Your task to perform on an android device: check battery use Image 0: 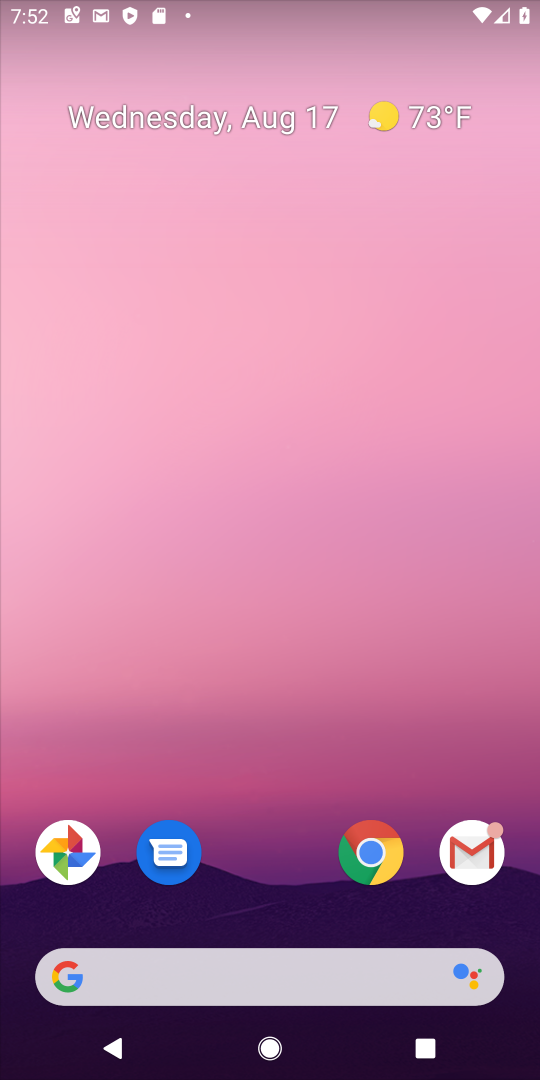
Step 0: drag from (273, 913) to (194, 303)
Your task to perform on an android device: check battery use Image 1: 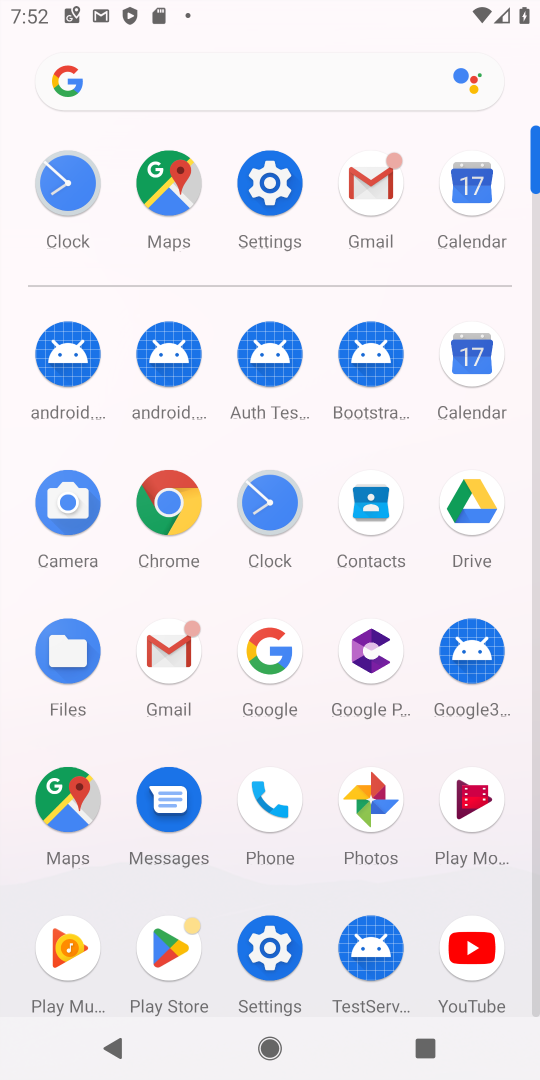
Step 1: click (265, 180)
Your task to perform on an android device: check battery use Image 2: 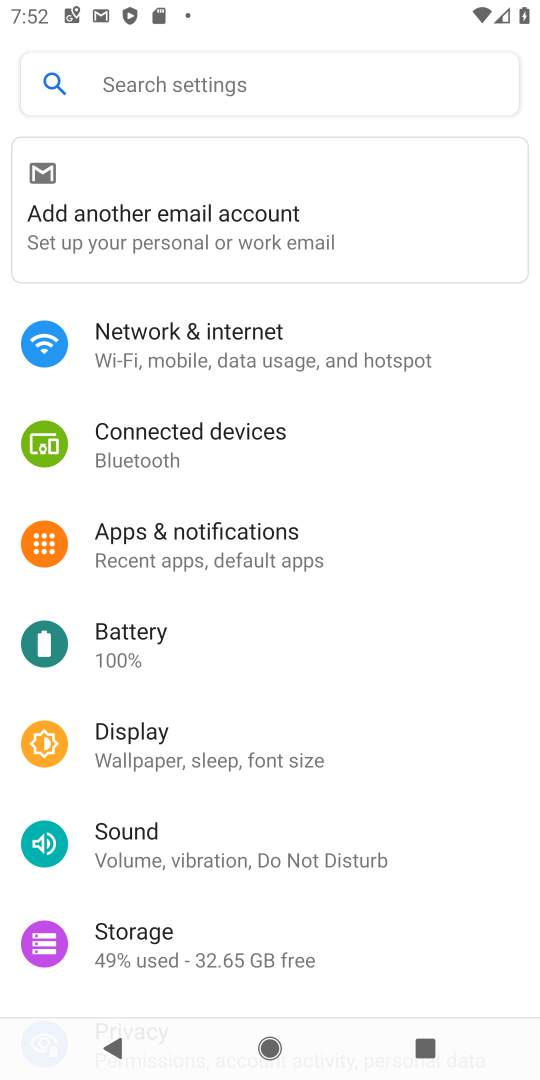
Step 2: click (133, 632)
Your task to perform on an android device: check battery use Image 3: 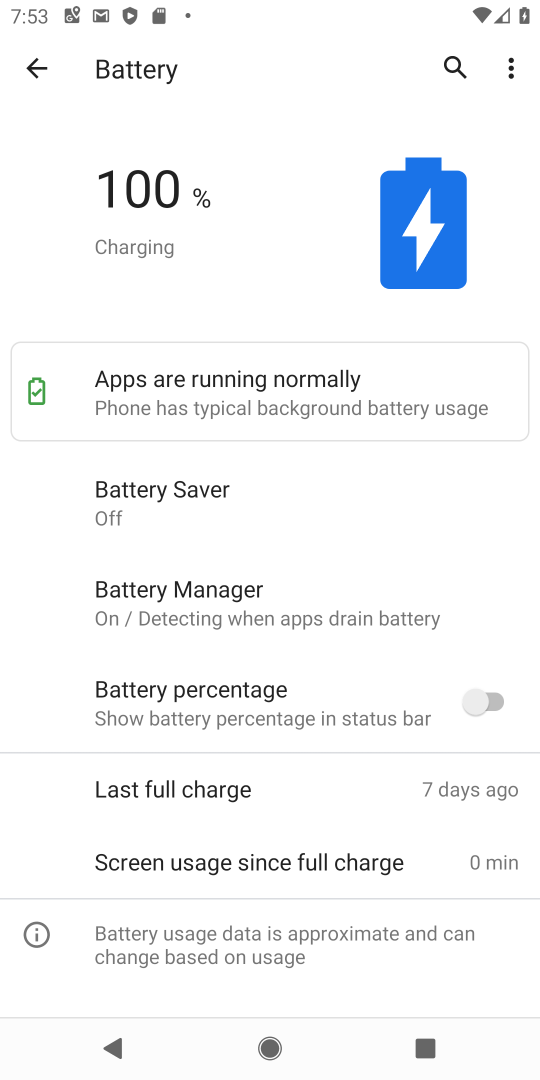
Step 3: task complete